Your task to perform on an android device: toggle improve location accuracy Image 0: 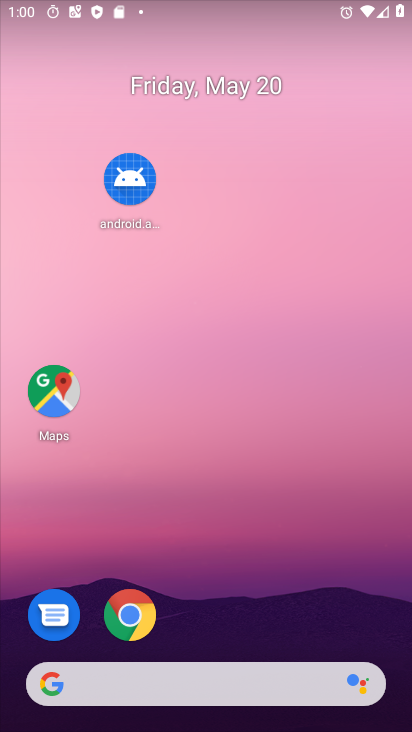
Step 0: drag from (294, 604) to (288, 115)
Your task to perform on an android device: toggle improve location accuracy Image 1: 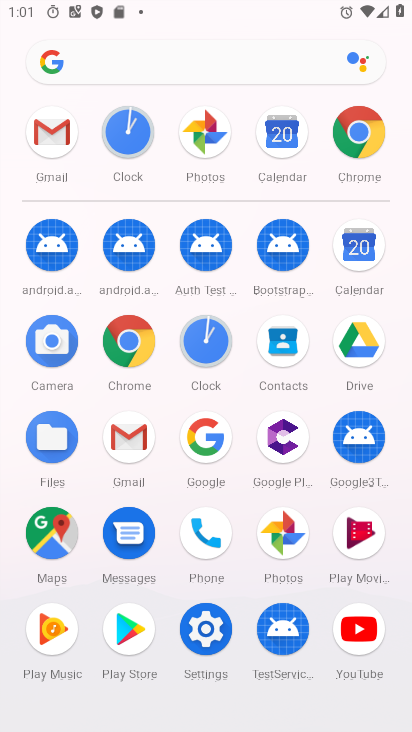
Step 1: click (206, 624)
Your task to perform on an android device: toggle improve location accuracy Image 2: 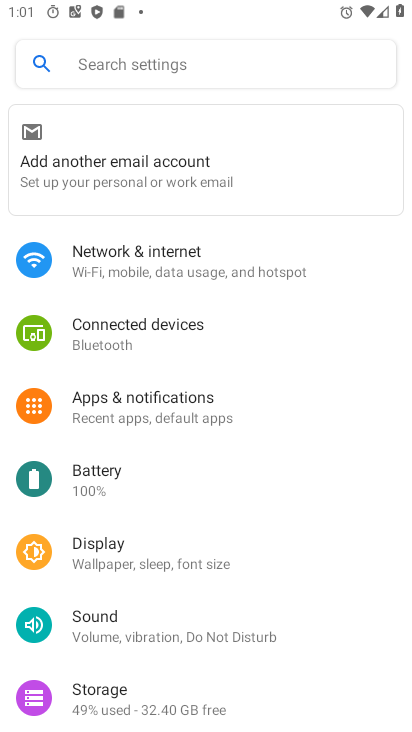
Step 2: drag from (257, 587) to (145, 140)
Your task to perform on an android device: toggle improve location accuracy Image 3: 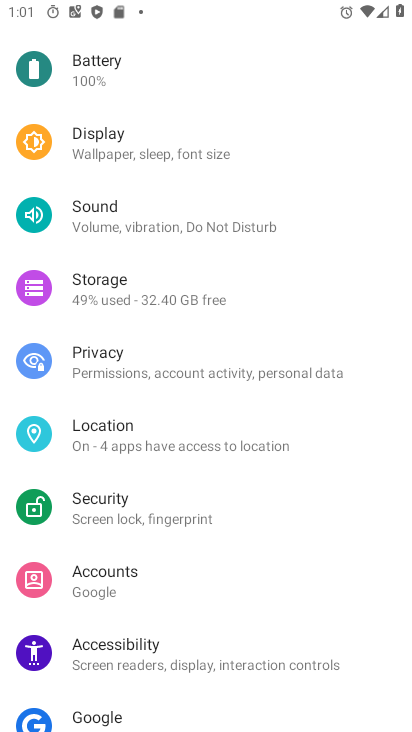
Step 3: click (122, 439)
Your task to perform on an android device: toggle improve location accuracy Image 4: 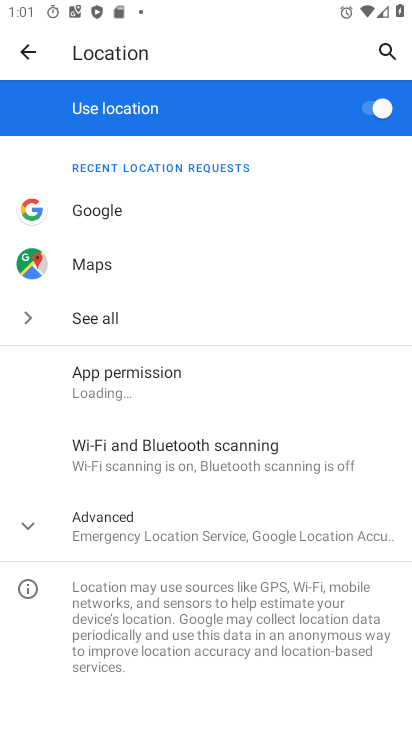
Step 4: click (156, 535)
Your task to perform on an android device: toggle improve location accuracy Image 5: 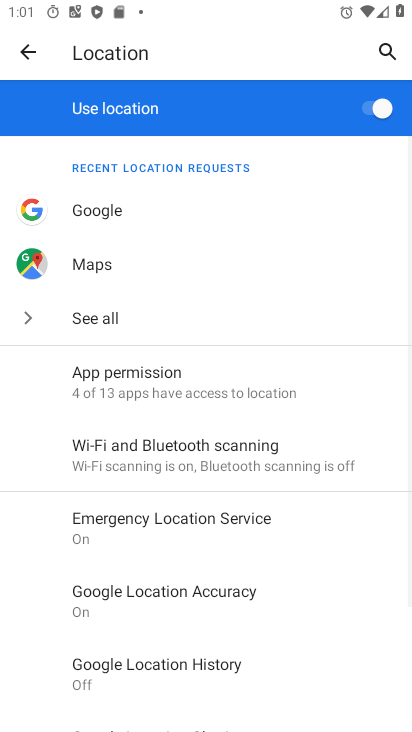
Step 5: click (200, 597)
Your task to perform on an android device: toggle improve location accuracy Image 6: 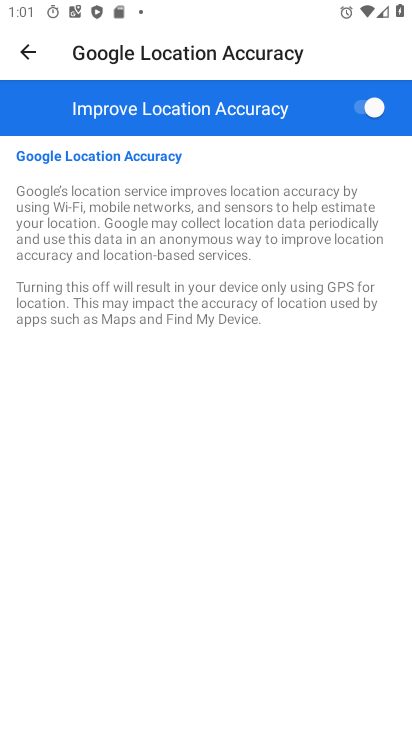
Step 6: click (379, 103)
Your task to perform on an android device: toggle improve location accuracy Image 7: 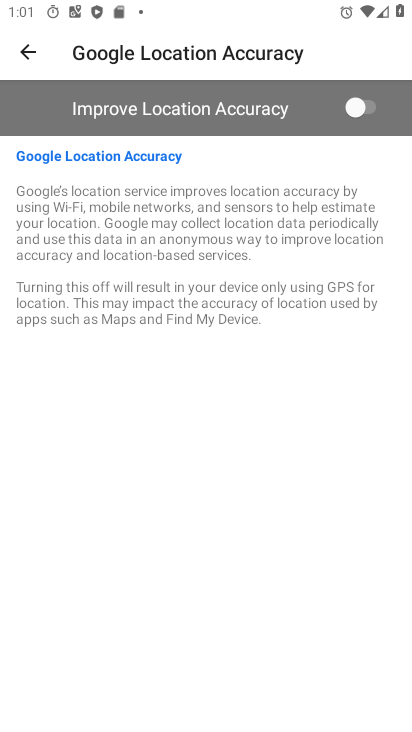
Step 7: task complete